Your task to perform on an android device: turn off smart reply in the gmail app Image 0: 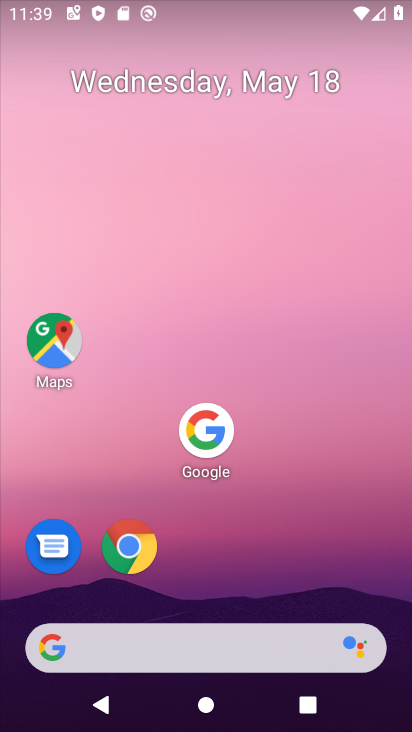
Step 0: drag from (312, 587) to (286, 122)
Your task to perform on an android device: turn off smart reply in the gmail app Image 1: 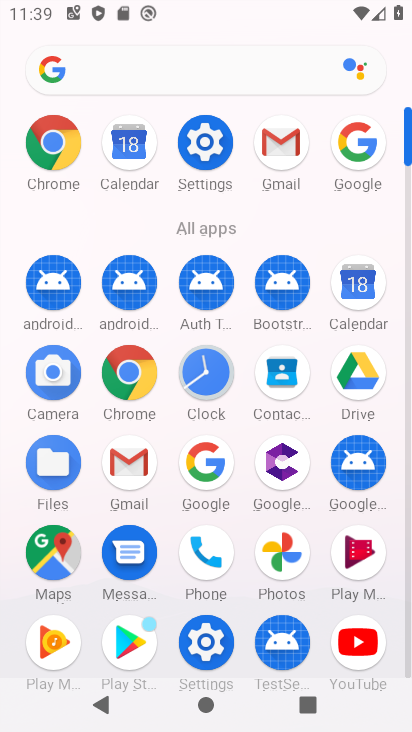
Step 1: click (276, 147)
Your task to perform on an android device: turn off smart reply in the gmail app Image 2: 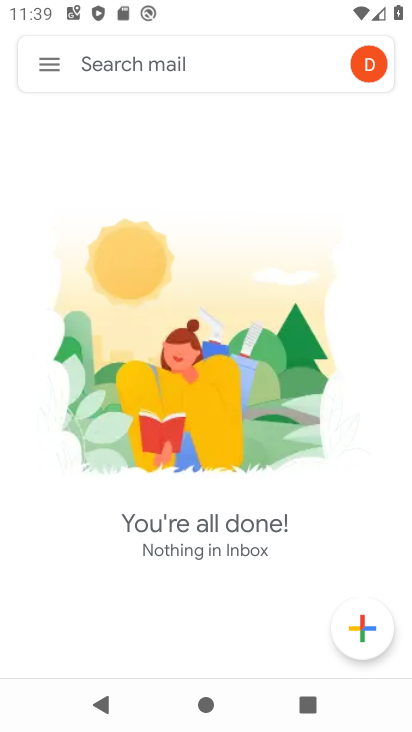
Step 2: click (51, 63)
Your task to perform on an android device: turn off smart reply in the gmail app Image 3: 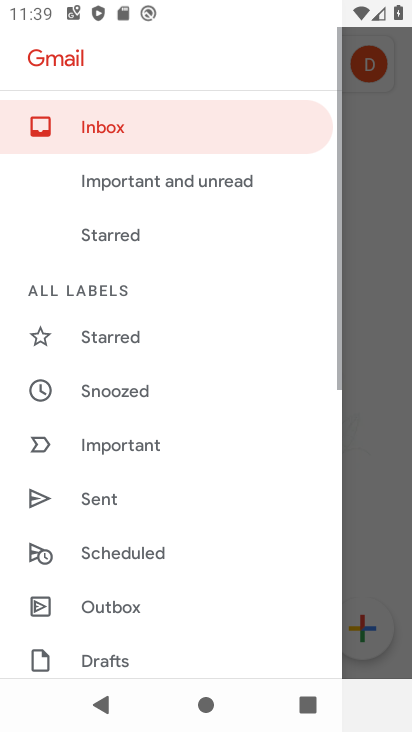
Step 3: drag from (168, 568) to (136, 66)
Your task to perform on an android device: turn off smart reply in the gmail app Image 4: 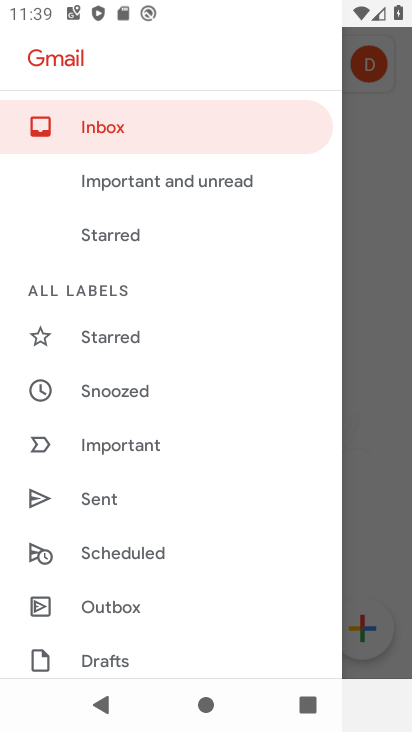
Step 4: drag from (157, 585) to (156, 11)
Your task to perform on an android device: turn off smart reply in the gmail app Image 5: 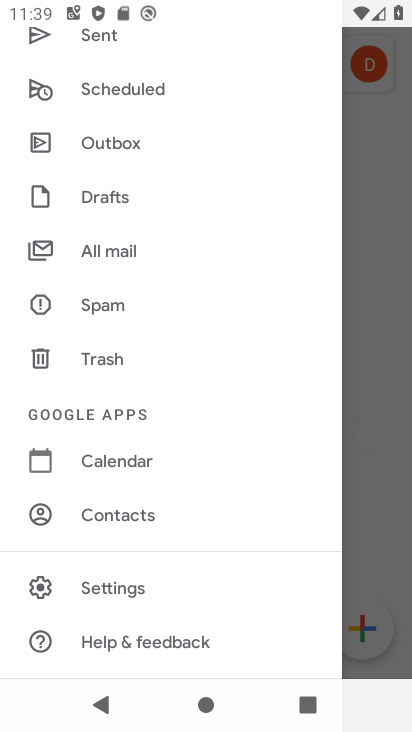
Step 5: click (115, 592)
Your task to perform on an android device: turn off smart reply in the gmail app Image 6: 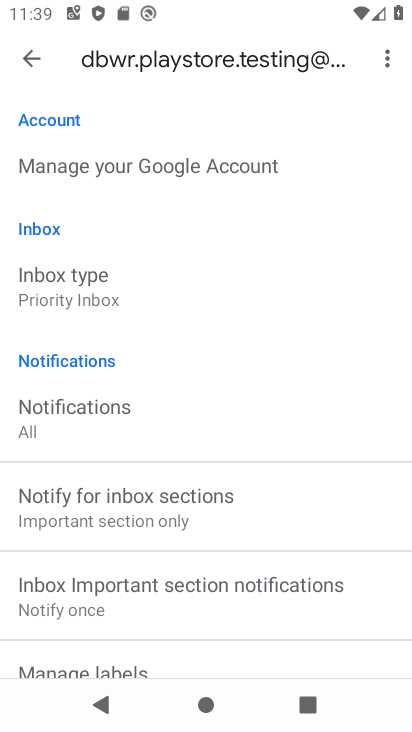
Step 6: drag from (217, 605) to (230, 10)
Your task to perform on an android device: turn off smart reply in the gmail app Image 7: 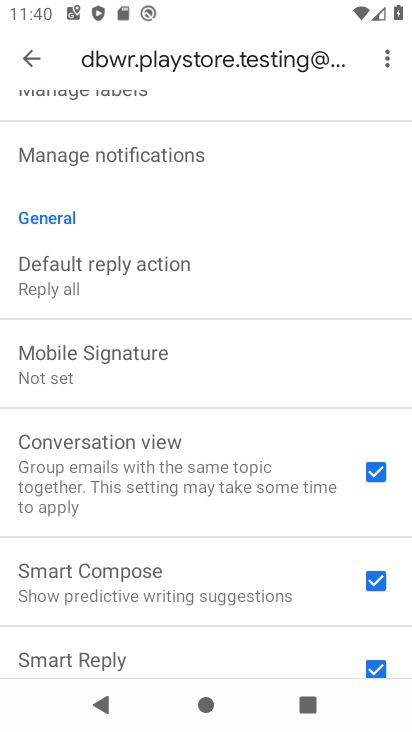
Step 7: click (377, 664)
Your task to perform on an android device: turn off smart reply in the gmail app Image 8: 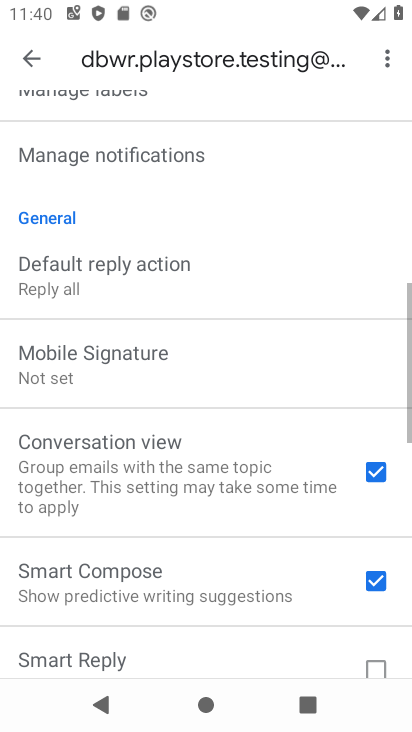
Step 8: task complete